Your task to perform on an android device: open device folders in google photos Image 0: 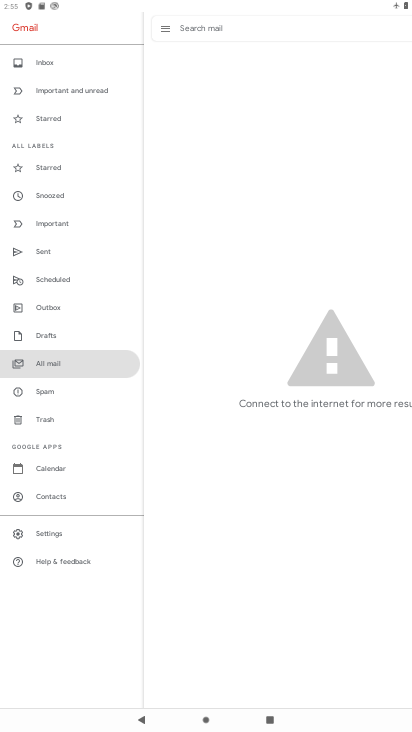
Step 0: press home button
Your task to perform on an android device: open device folders in google photos Image 1: 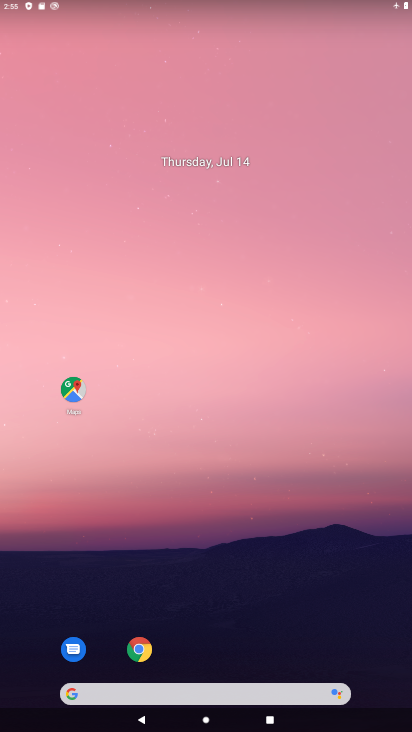
Step 1: drag from (212, 631) to (214, 11)
Your task to perform on an android device: open device folders in google photos Image 2: 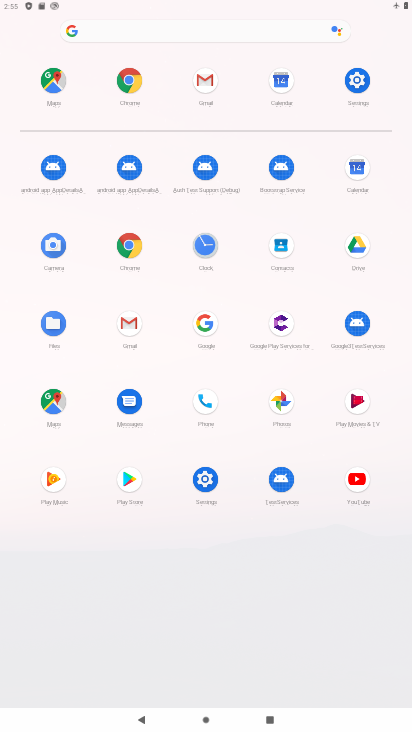
Step 2: click (288, 402)
Your task to perform on an android device: open device folders in google photos Image 3: 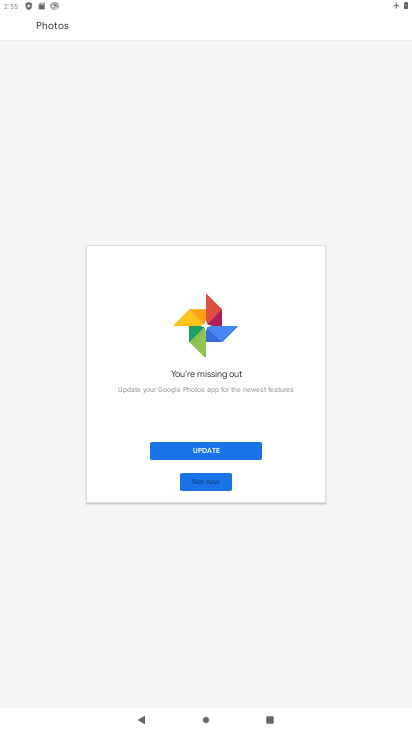
Step 3: click (211, 479)
Your task to perform on an android device: open device folders in google photos Image 4: 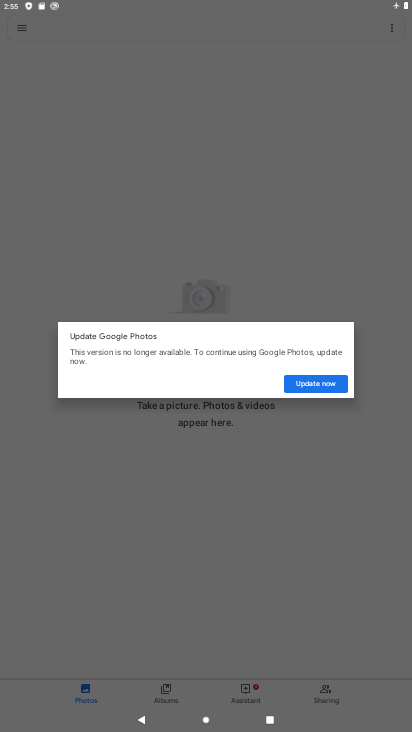
Step 4: click (333, 385)
Your task to perform on an android device: open device folders in google photos Image 5: 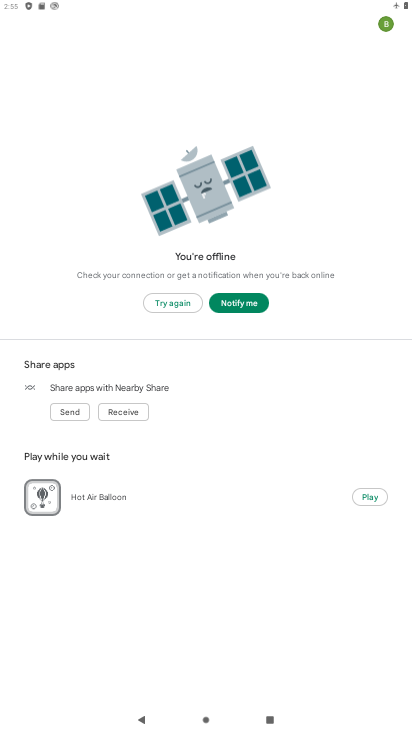
Step 5: press back button
Your task to perform on an android device: open device folders in google photos Image 6: 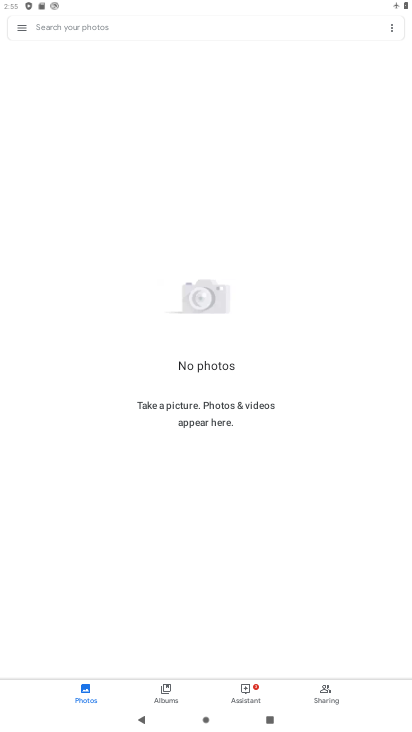
Step 6: click (27, 22)
Your task to perform on an android device: open device folders in google photos Image 7: 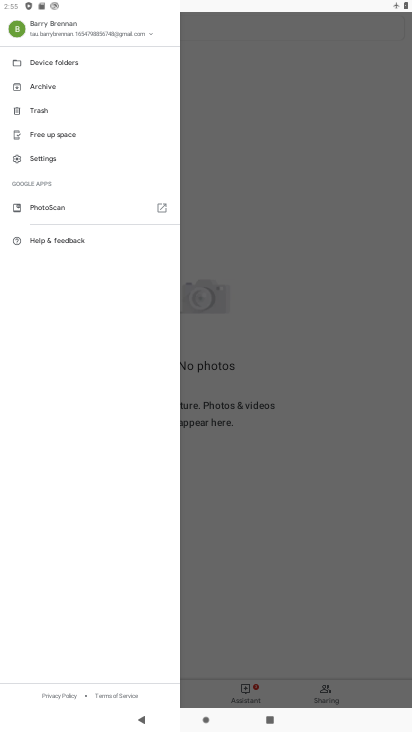
Step 7: click (74, 63)
Your task to perform on an android device: open device folders in google photos Image 8: 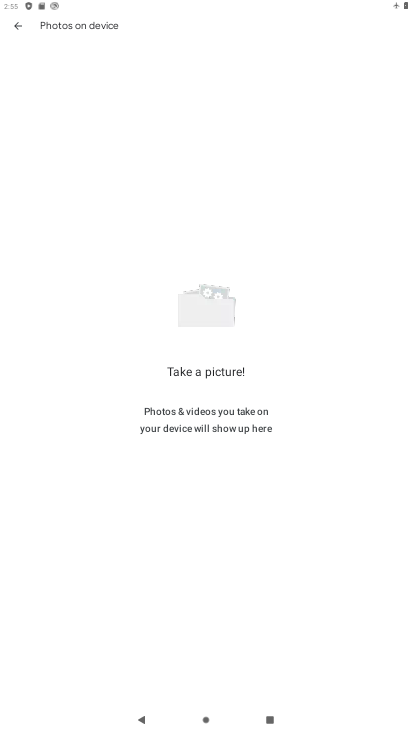
Step 8: task complete